Your task to perform on an android device: change text size in settings app Image 0: 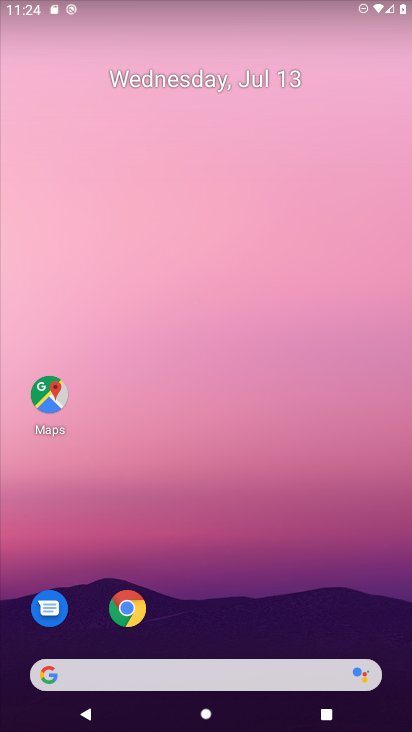
Step 0: drag from (213, 559) to (247, 128)
Your task to perform on an android device: change text size in settings app Image 1: 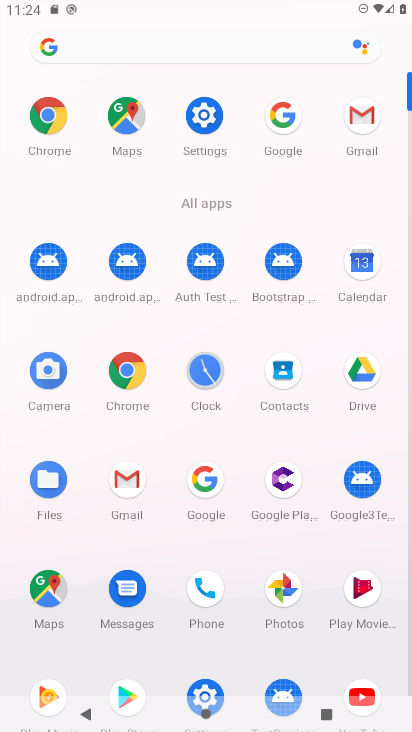
Step 1: click (204, 125)
Your task to perform on an android device: change text size in settings app Image 2: 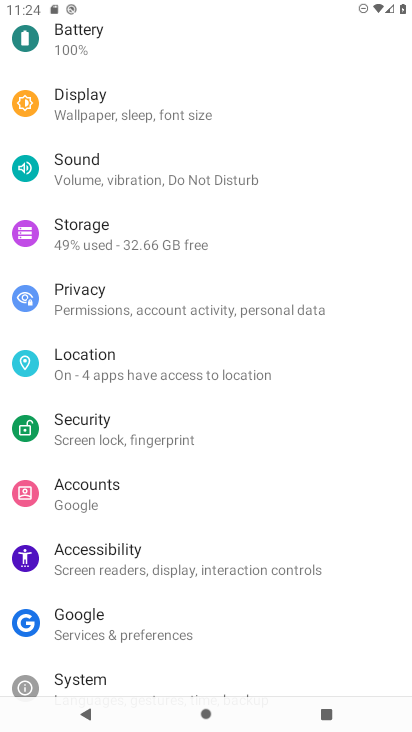
Step 2: click (187, 117)
Your task to perform on an android device: change text size in settings app Image 3: 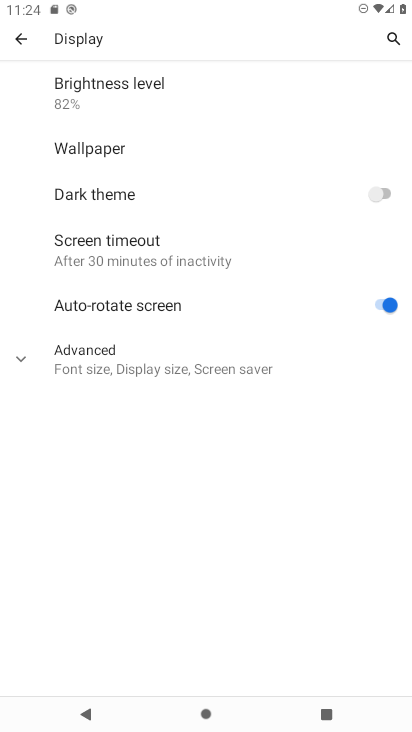
Step 3: click (173, 351)
Your task to perform on an android device: change text size in settings app Image 4: 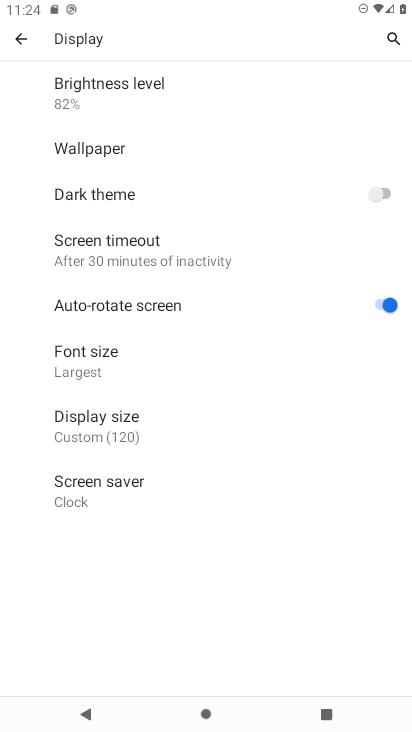
Step 4: click (115, 380)
Your task to perform on an android device: change text size in settings app Image 5: 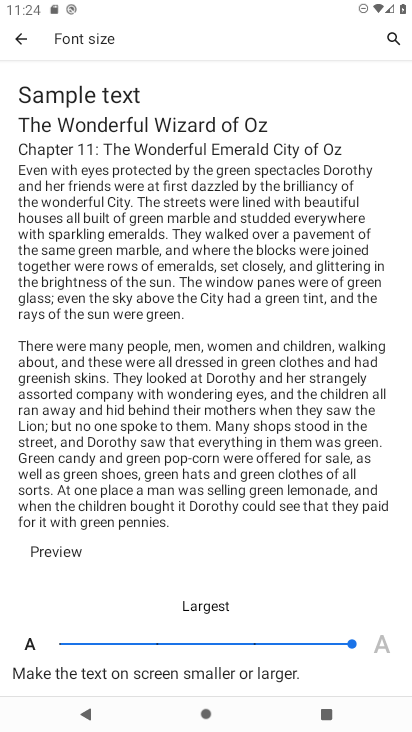
Step 5: click (277, 640)
Your task to perform on an android device: change text size in settings app Image 6: 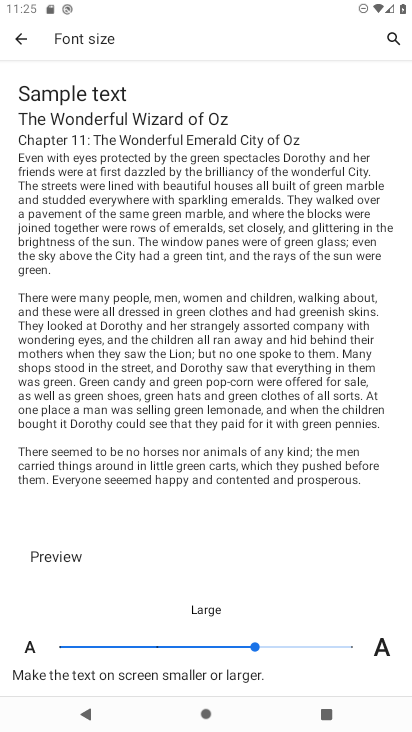
Step 6: task complete